Your task to perform on an android device: Open the phone app and click the voicemail tab. Image 0: 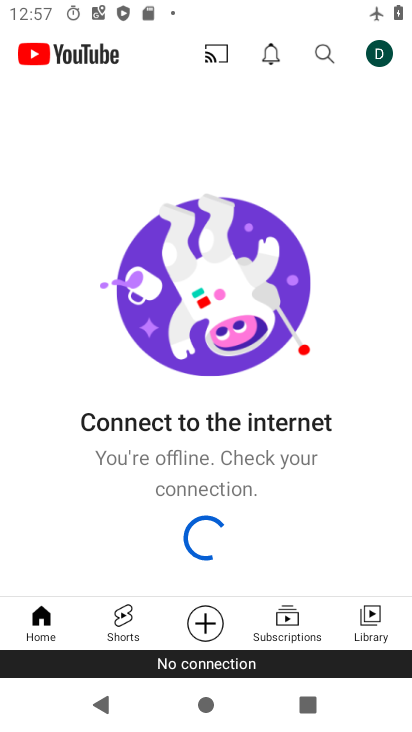
Step 0: press home button
Your task to perform on an android device: Open the phone app and click the voicemail tab. Image 1: 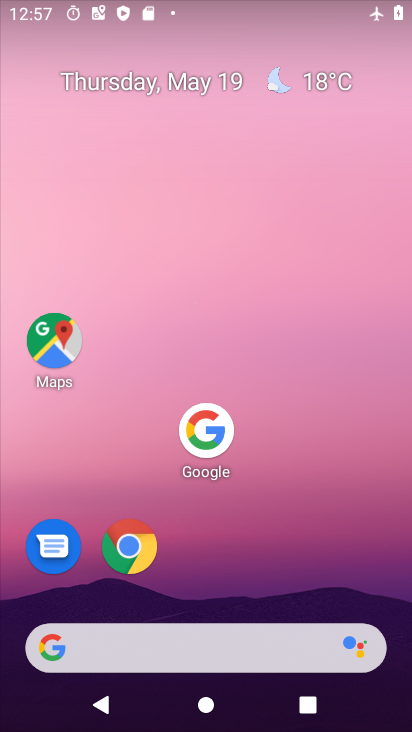
Step 1: drag from (243, 568) to (275, 93)
Your task to perform on an android device: Open the phone app and click the voicemail tab. Image 2: 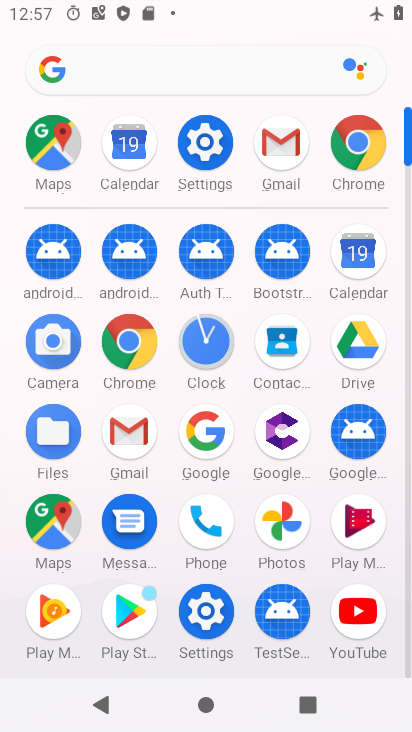
Step 2: click (204, 523)
Your task to perform on an android device: Open the phone app and click the voicemail tab. Image 3: 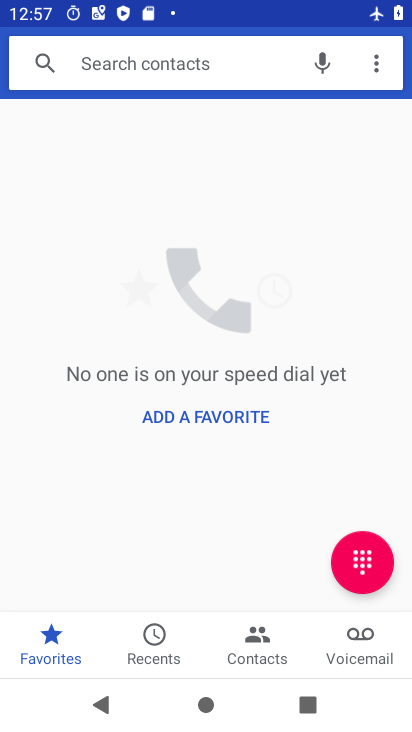
Step 3: click (349, 651)
Your task to perform on an android device: Open the phone app and click the voicemail tab. Image 4: 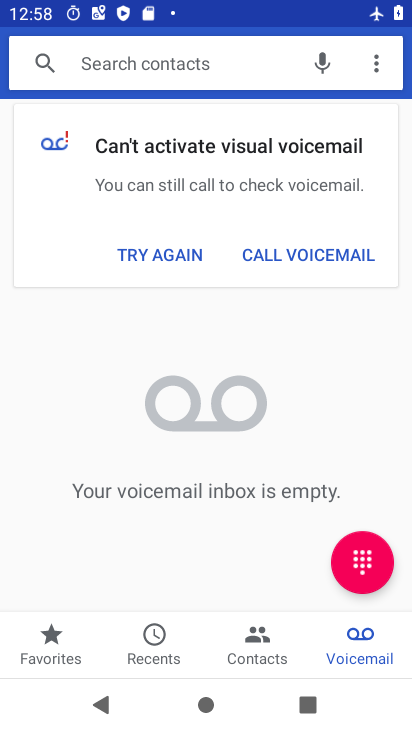
Step 4: task complete